Your task to perform on an android device: Open CNN.com Image 0: 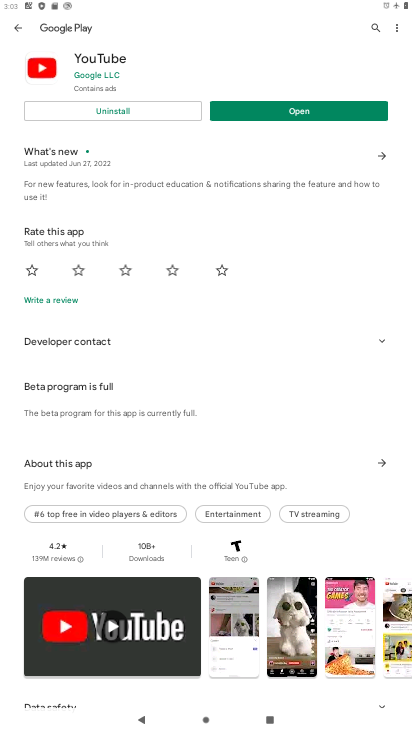
Step 0: press home button
Your task to perform on an android device: Open CNN.com Image 1: 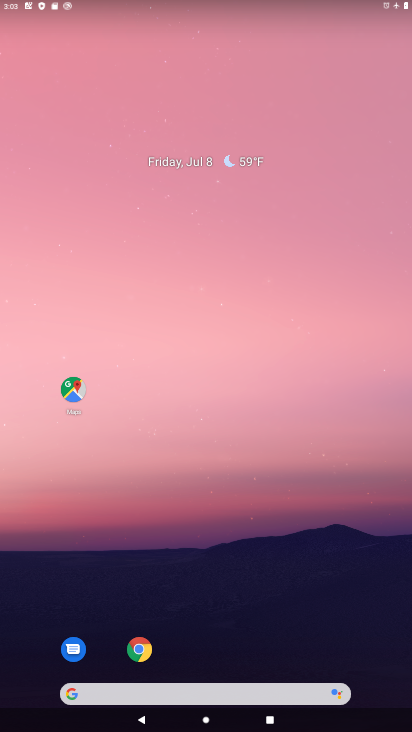
Step 1: drag from (251, 624) to (223, 109)
Your task to perform on an android device: Open CNN.com Image 2: 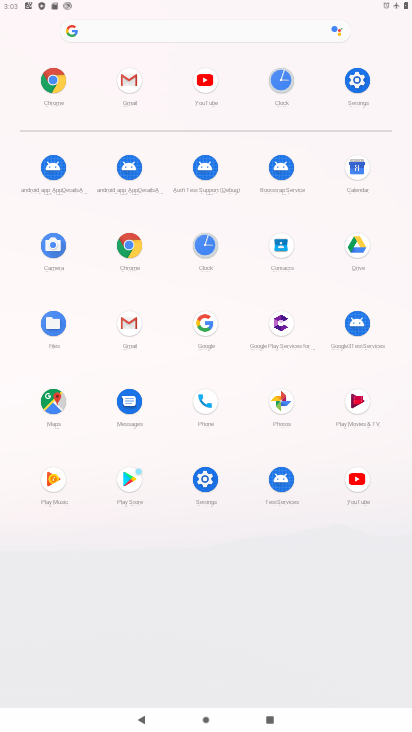
Step 2: click (128, 243)
Your task to perform on an android device: Open CNN.com Image 3: 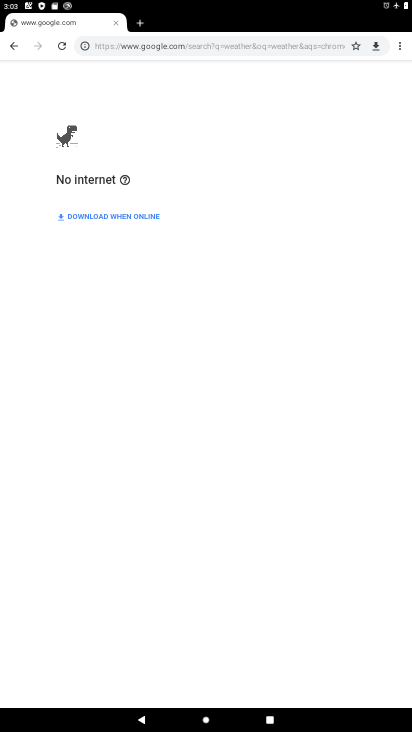
Step 3: click (151, 43)
Your task to perform on an android device: Open CNN.com Image 4: 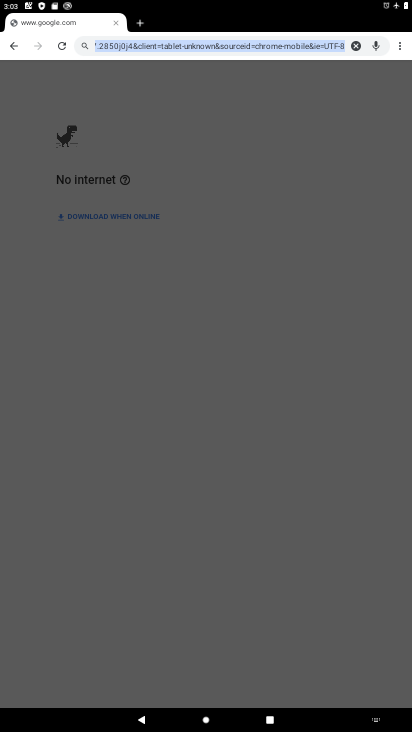
Step 4: type "cnn.com"
Your task to perform on an android device: Open CNN.com Image 5: 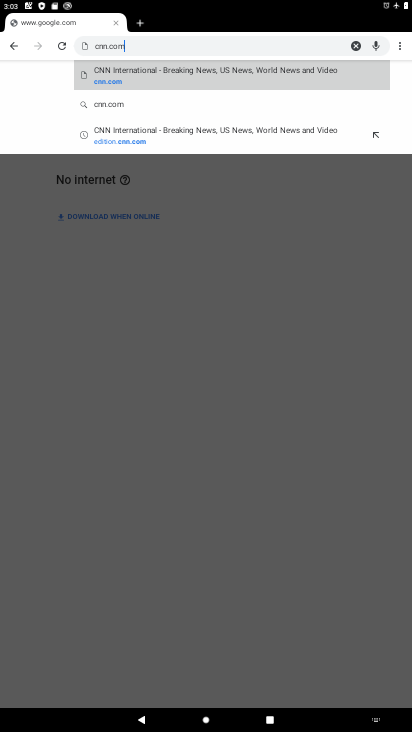
Step 5: click (105, 82)
Your task to perform on an android device: Open CNN.com Image 6: 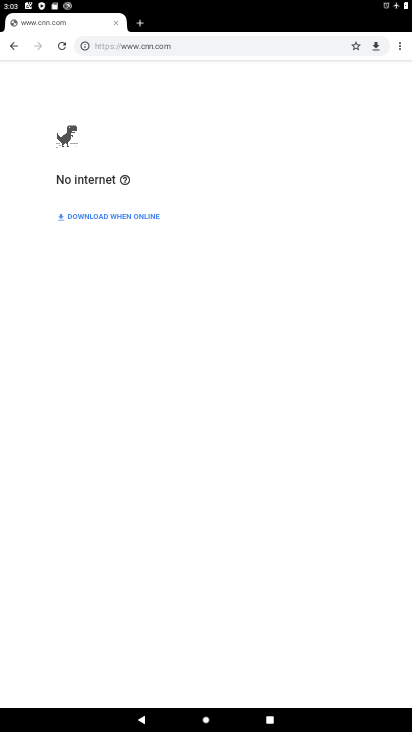
Step 6: task complete